Your task to perform on an android device: Open Yahoo.com Image 0: 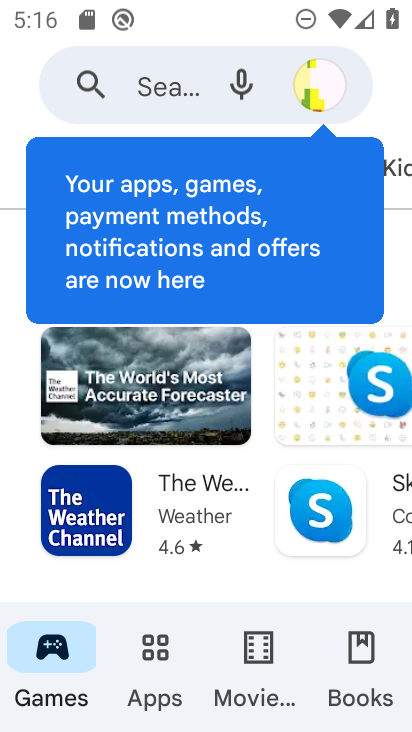
Step 0: press back button
Your task to perform on an android device: Open Yahoo.com Image 1: 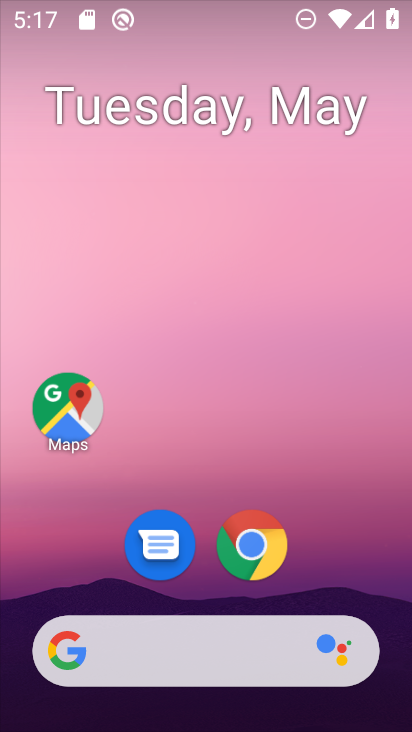
Step 1: drag from (355, 569) to (297, 60)
Your task to perform on an android device: Open Yahoo.com Image 2: 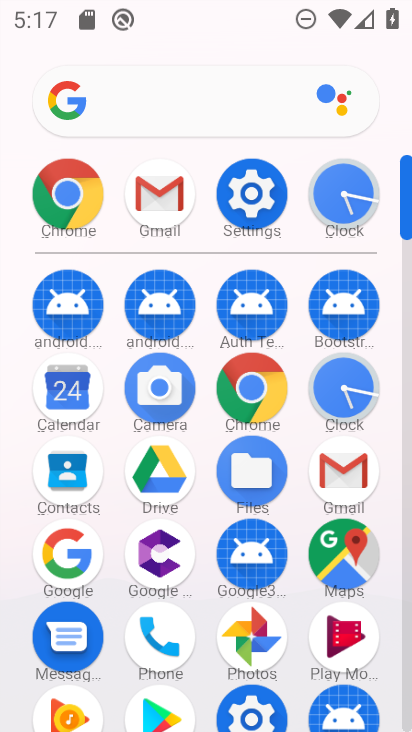
Step 2: drag from (37, 573) to (0, 267)
Your task to perform on an android device: Open Yahoo.com Image 3: 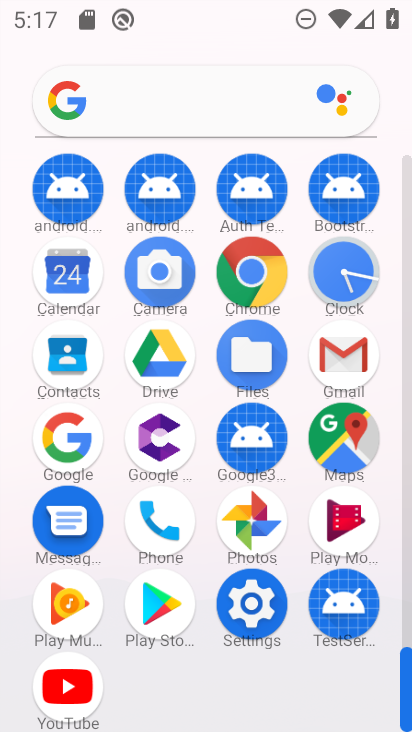
Step 3: click (252, 266)
Your task to perform on an android device: Open Yahoo.com Image 4: 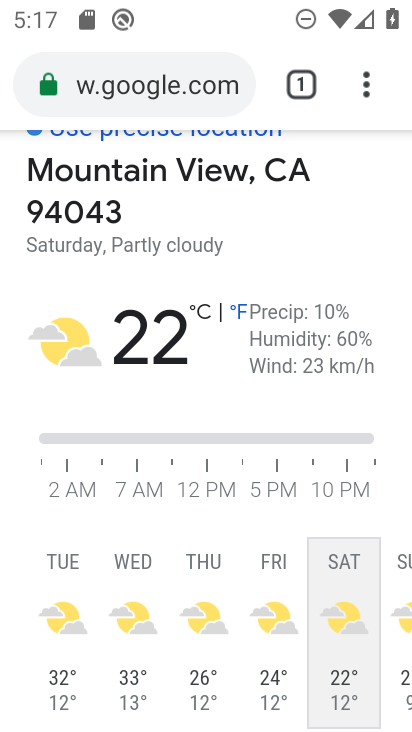
Step 4: click (171, 75)
Your task to perform on an android device: Open Yahoo.com Image 5: 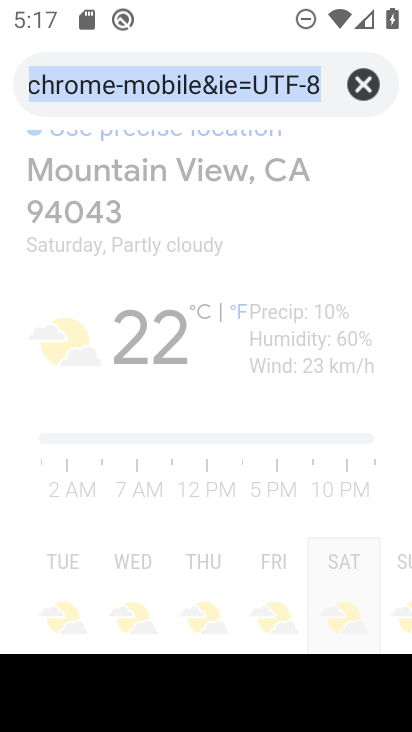
Step 5: click (349, 73)
Your task to perform on an android device: Open Yahoo.com Image 6: 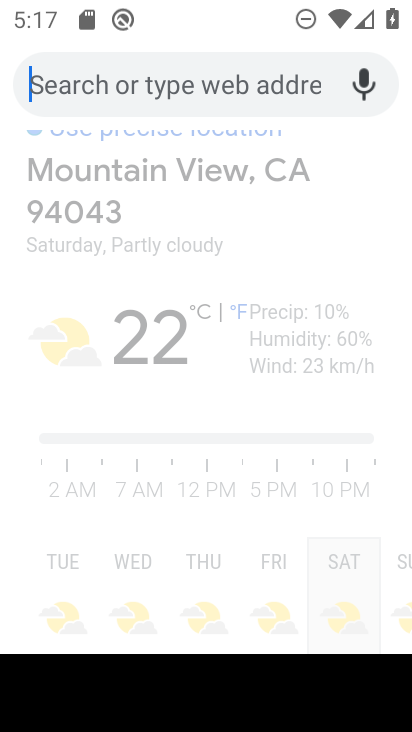
Step 6: type " Yahoo.com"
Your task to perform on an android device: Open Yahoo.com Image 7: 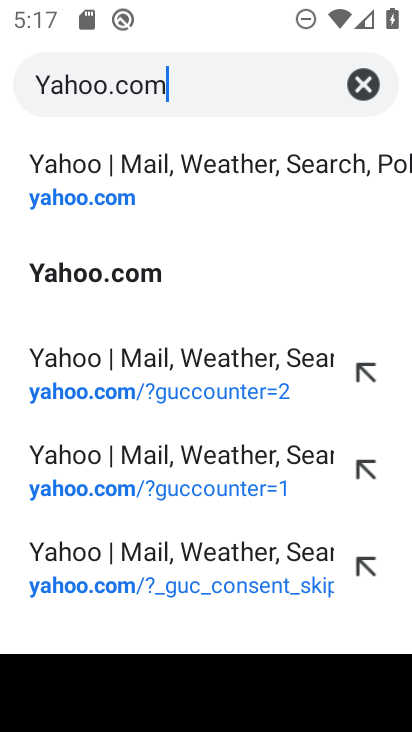
Step 7: type ""
Your task to perform on an android device: Open Yahoo.com Image 8: 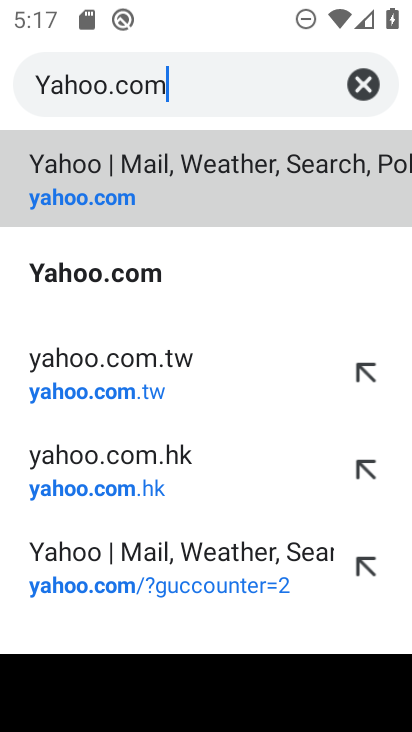
Step 8: click (163, 191)
Your task to perform on an android device: Open Yahoo.com Image 9: 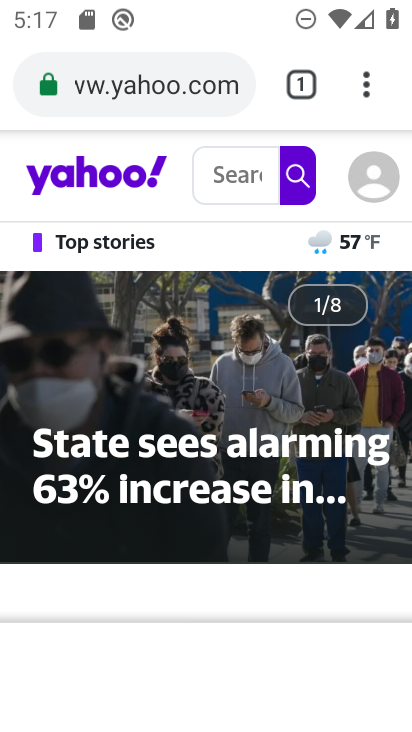
Step 9: task complete